Your task to perform on an android device: Open the Play Movies app and select the watchlist tab. Image 0: 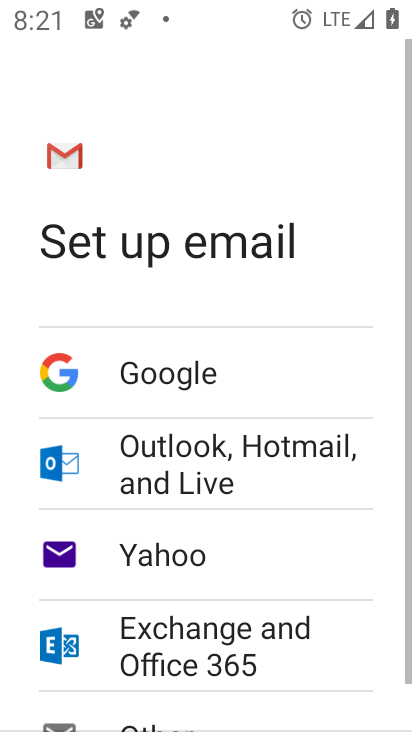
Step 0: press home button
Your task to perform on an android device: Open the Play Movies app and select the watchlist tab. Image 1: 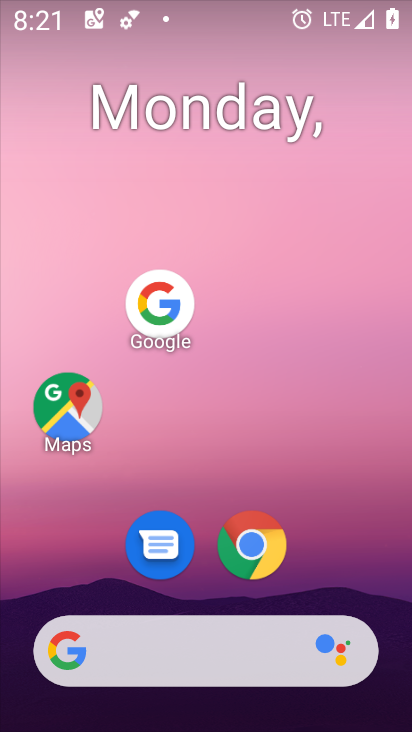
Step 1: drag from (161, 639) to (388, 49)
Your task to perform on an android device: Open the Play Movies app and select the watchlist tab. Image 2: 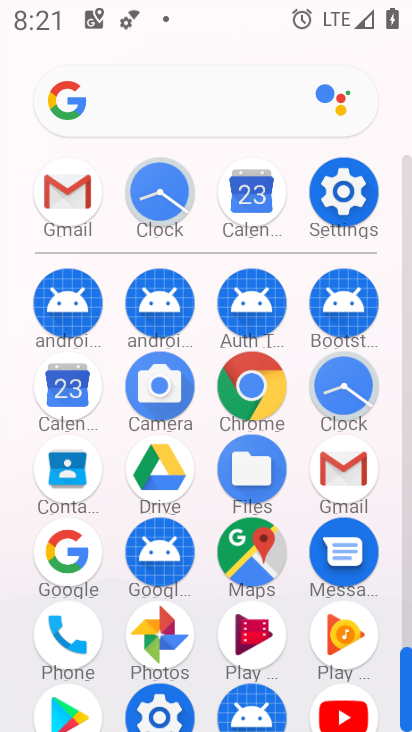
Step 2: click (256, 641)
Your task to perform on an android device: Open the Play Movies app and select the watchlist tab. Image 3: 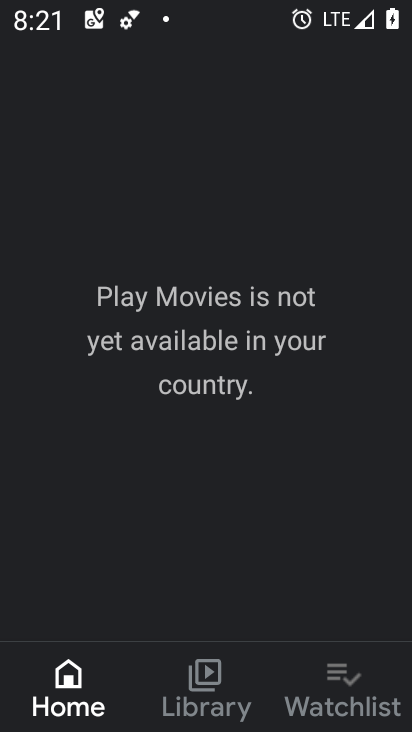
Step 3: click (354, 700)
Your task to perform on an android device: Open the Play Movies app and select the watchlist tab. Image 4: 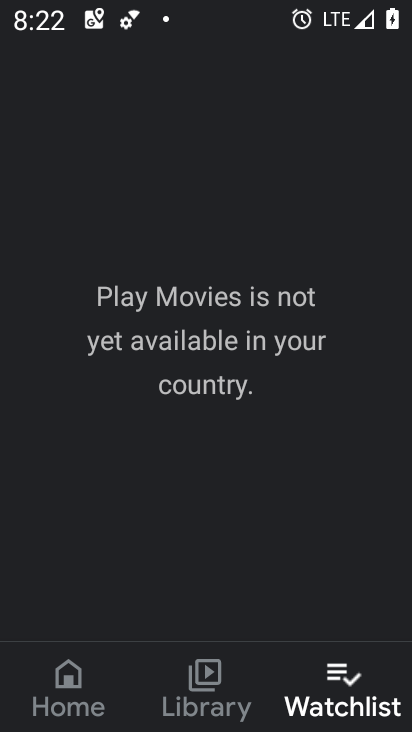
Step 4: task complete